Your task to perform on an android device: Open battery settings Image 0: 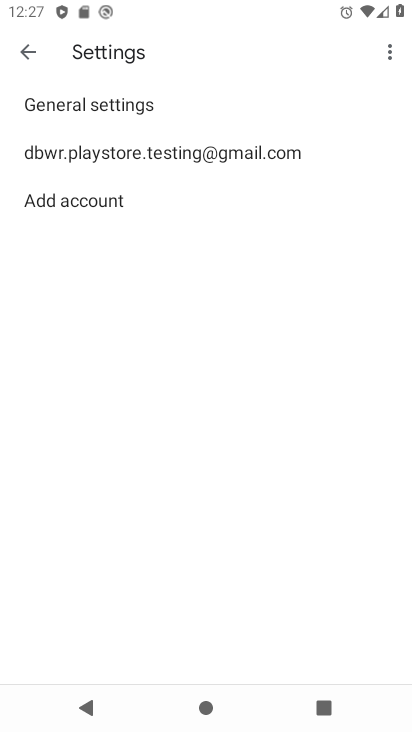
Step 0: press home button
Your task to perform on an android device: Open battery settings Image 1: 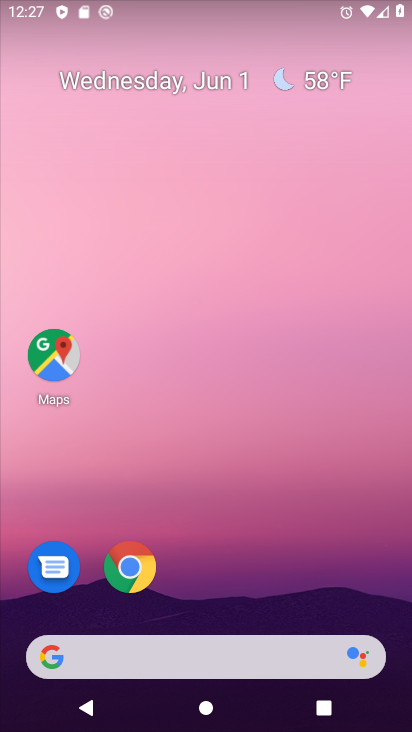
Step 1: drag from (208, 587) to (229, 92)
Your task to perform on an android device: Open battery settings Image 2: 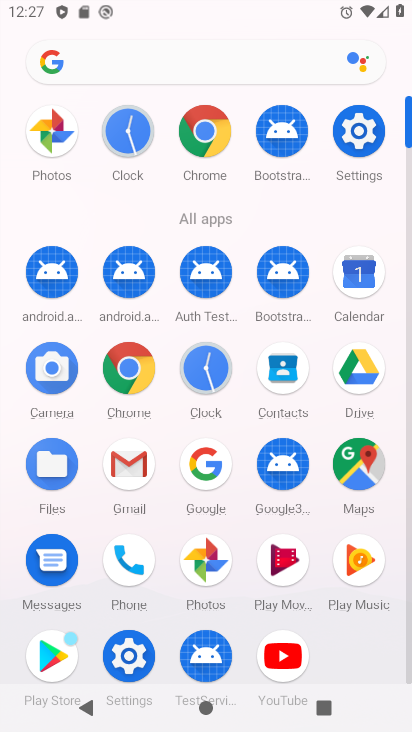
Step 2: click (352, 136)
Your task to perform on an android device: Open battery settings Image 3: 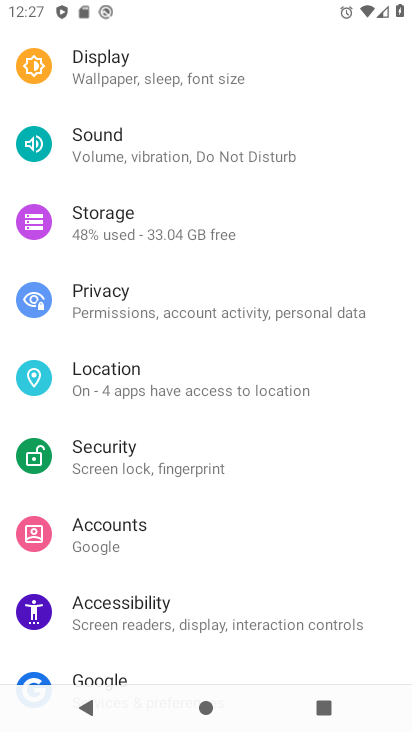
Step 3: drag from (132, 121) to (242, 500)
Your task to perform on an android device: Open battery settings Image 4: 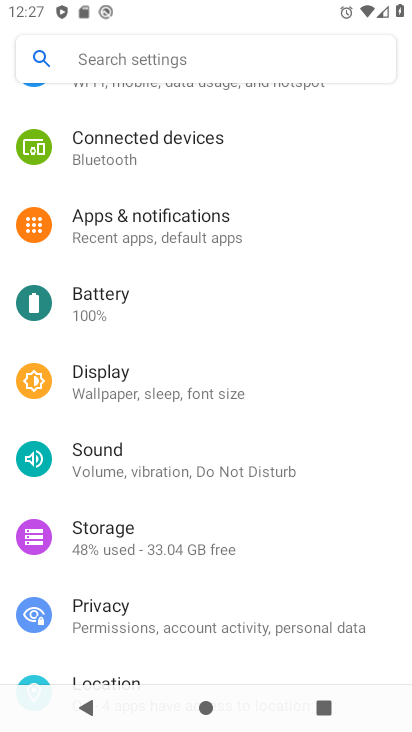
Step 4: click (136, 297)
Your task to perform on an android device: Open battery settings Image 5: 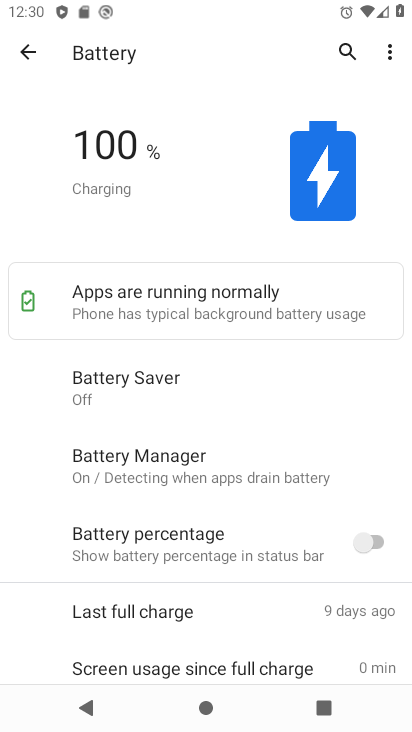
Step 5: task complete